Your task to perform on an android device: Open privacy settings Image 0: 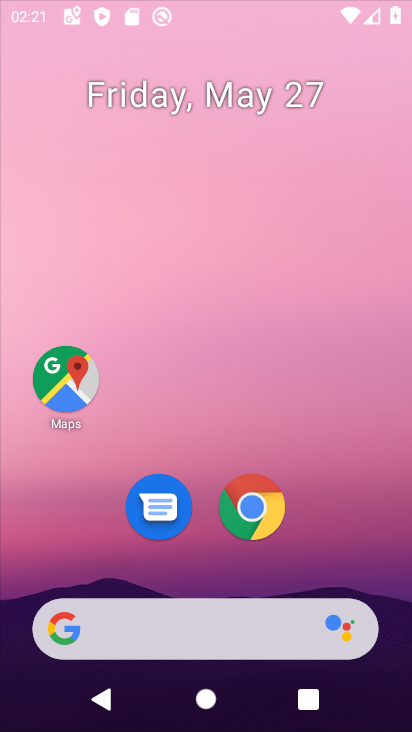
Step 0: click (303, 89)
Your task to perform on an android device: Open privacy settings Image 1: 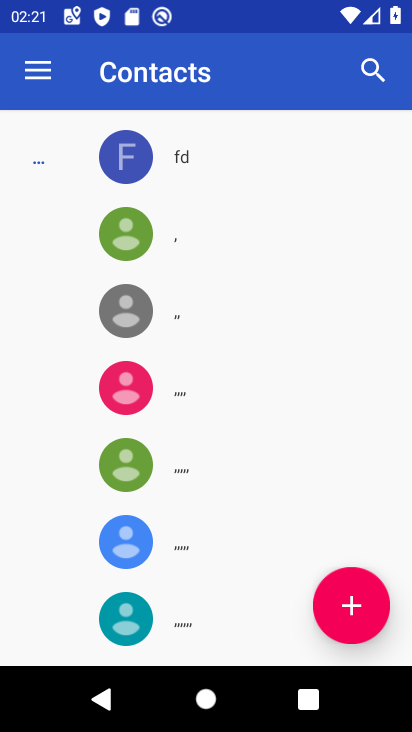
Step 1: drag from (197, 571) to (209, 133)
Your task to perform on an android device: Open privacy settings Image 2: 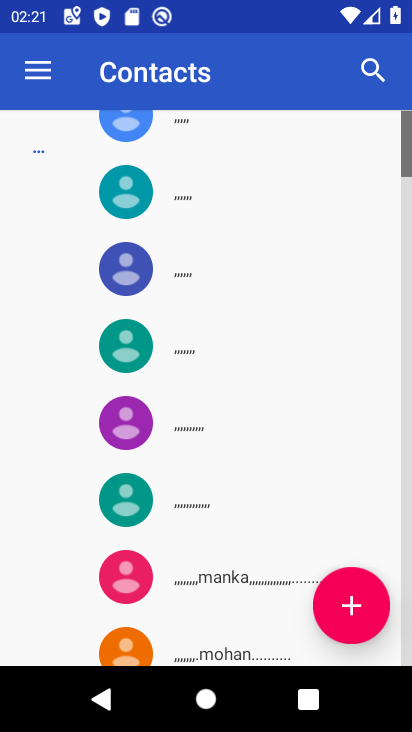
Step 2: press home button
Your task to perform on an android device: Open privacy settings Image 3: 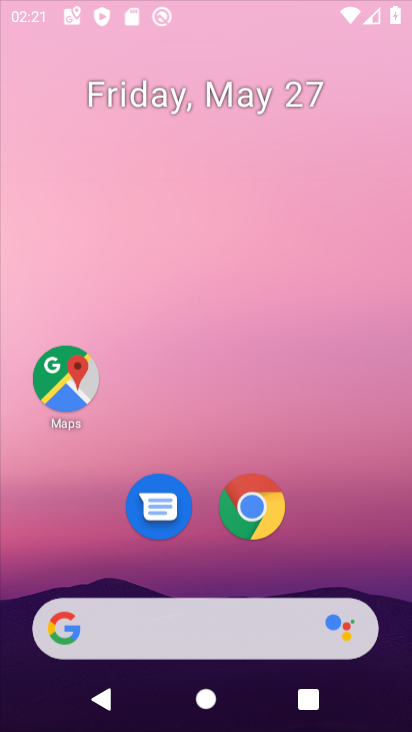
Step 3: drag from (229, 604) to (230, 148)
Your task to perform on an android device: Open privacy settings Image 4: 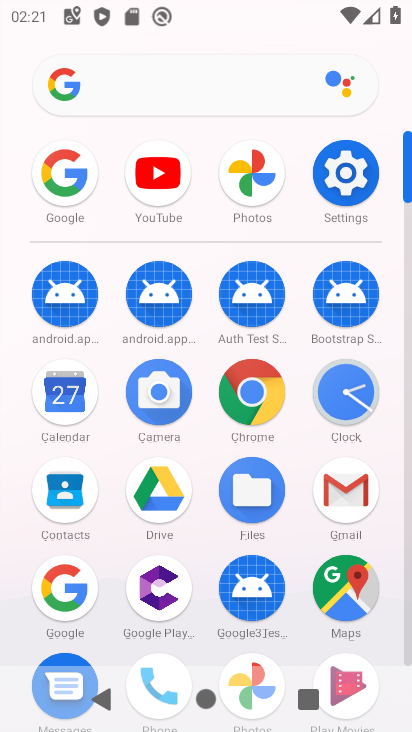
Step 4: click (342, 173)
Your task to perform on an android device: Open privacy settings Image 5: 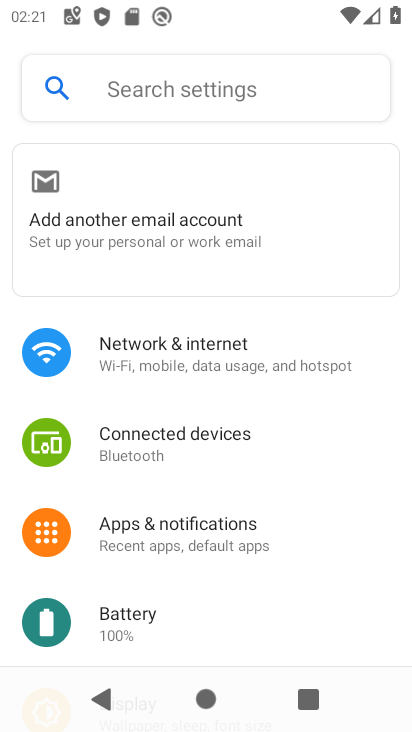
Step 5: drag from (211, 563) to (255, 60)
Your task to perform on an android device: Open privacy settings Image 6: 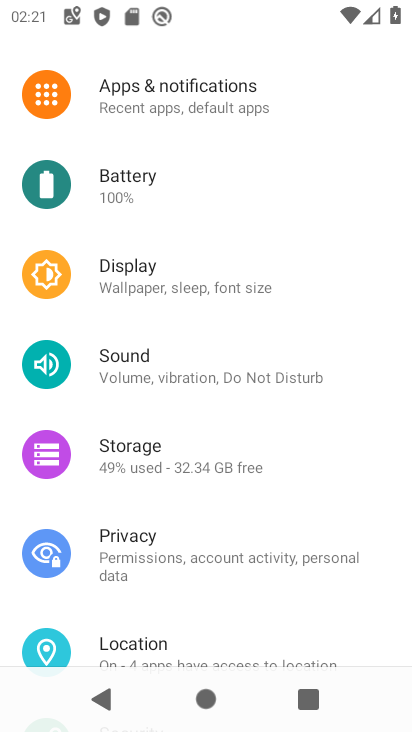
Step 6: click (164, 532)
Your task to perform on an android device: Open privacy settings Image 7: 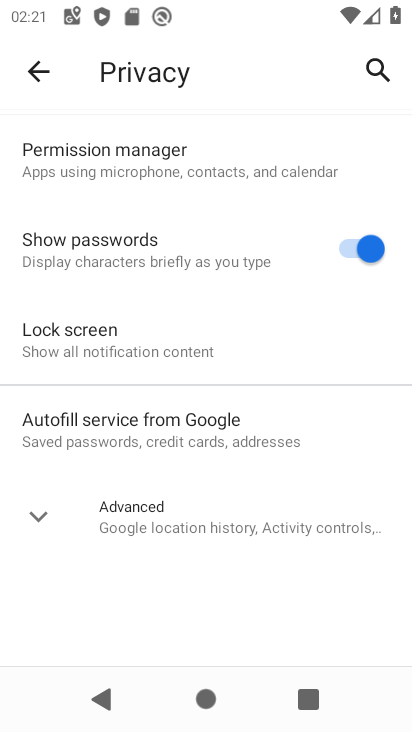
Step 7: task complete